Your task to perform on an android device: Go to location settings Image 0: 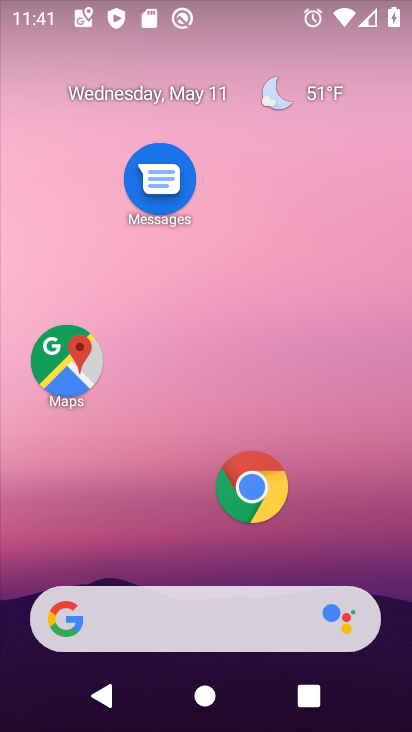
Step 0: drag from (166, 536) to (222, 152)
Your task to perform on an android device: Go to location settings Image 1: 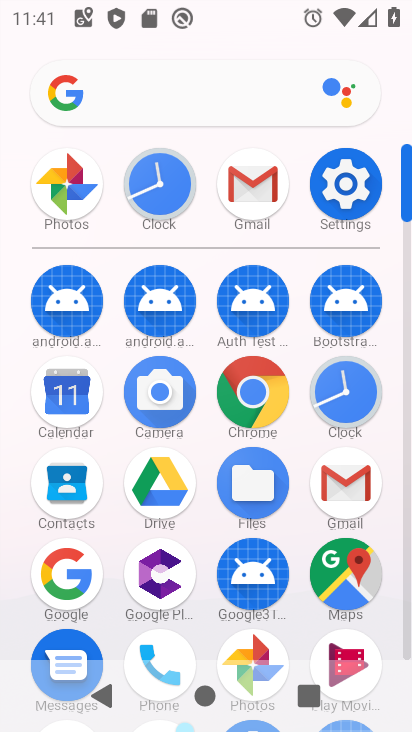
Step 1: click (339, 208)
Your task to perform on an android device: Go to location settings Image 2: 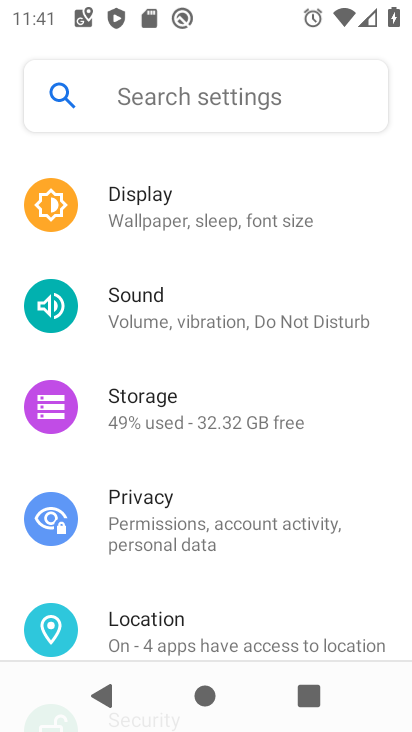
Step 2: click (175, 604)
Your task to perform on an android device: Go to location settings Image 3: 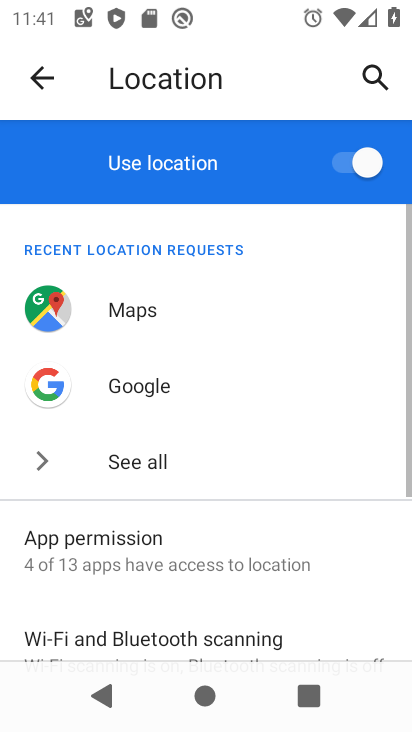
Step 3: task complete